Your task to perform on an android device: change keyboard looks Image 0: 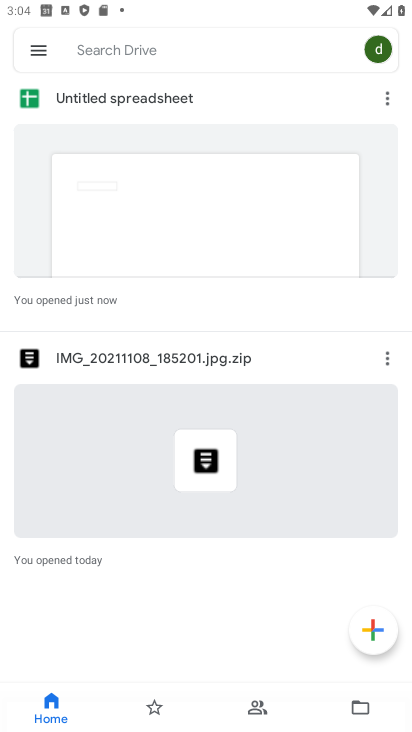
Step 0: press home button
Your task to perform on an android device: change keyboard looks Image 1: 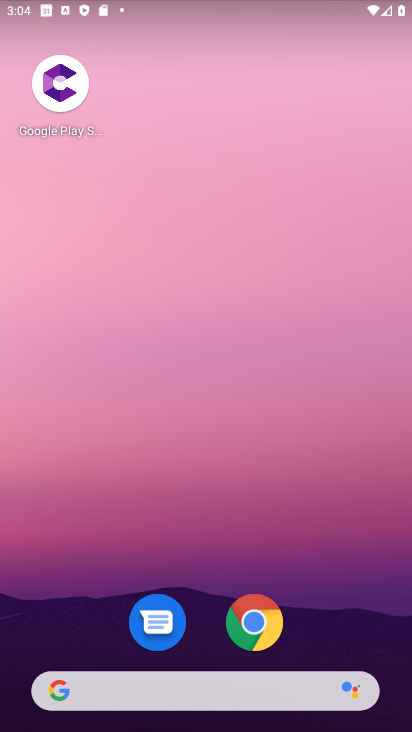
Step 1: drag from (321, 606) to (286, 231)
Your task to perform on an android device: change keyboard looks Image 2: 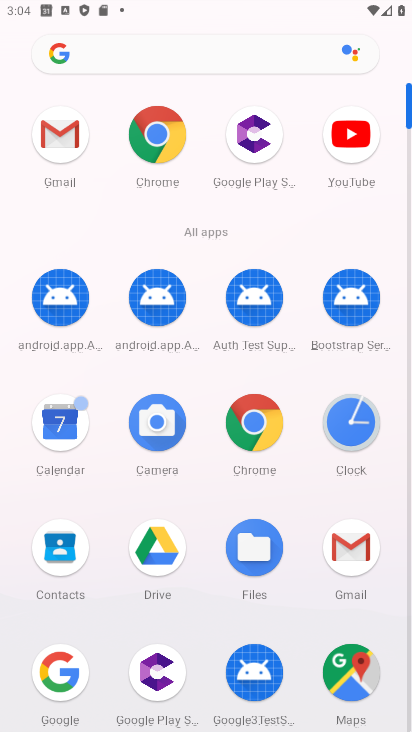
Step 2: drag from (279, 618) to (246, 247)
Your task to perform on an android device: change keyboard looks Image 3: 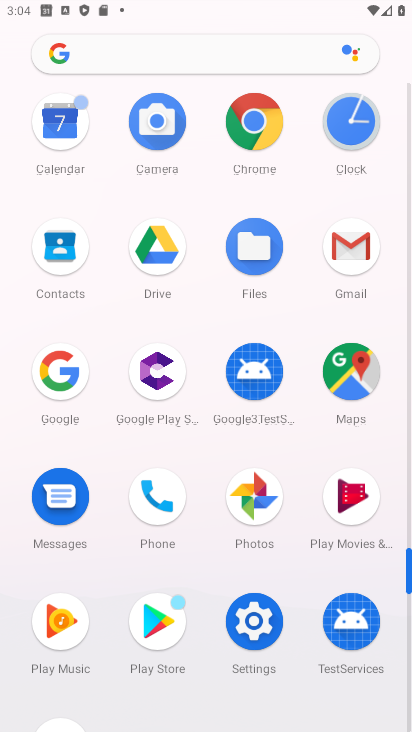
Step 3: click (258, 632)
Your task to perform on an android device: change keyboard looks Image 4: 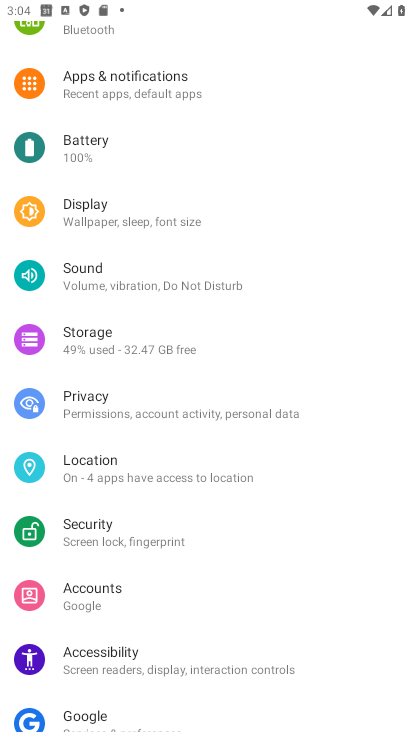
Step 4: drag from (255, 570) to (257, 234)
Your task to perform on an android device: change keyboard looks Image 5: 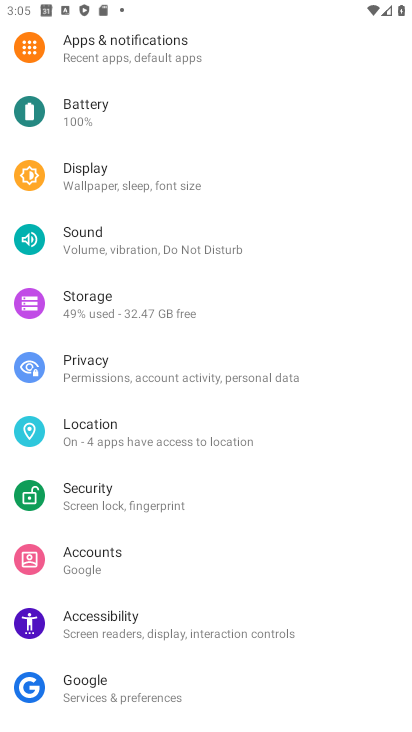
Step 5: drag from (195, 653) to (250, 294)
Your task to perform on an android device: change keyboard looks Image 6: 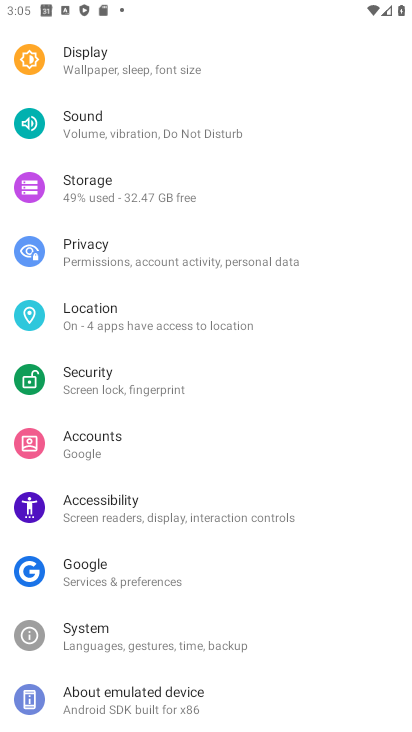
Step 6: click (149, 642)
Your task to perform on an android device: change keyboard looks Image 7: 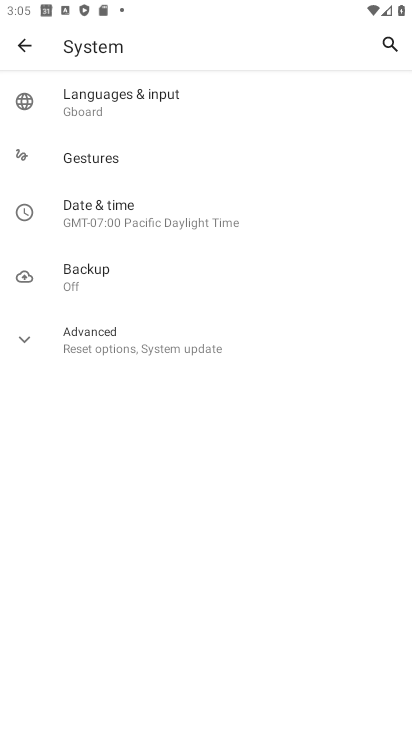
Step 7: click (142, 106)
Your task to perform on an android device: change keyboard looks Image 8: 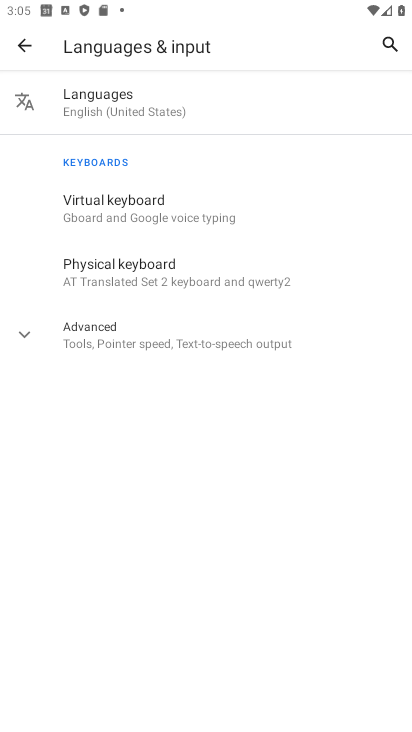
Step 8: click (144, 213)
Your task to perform on an android device: change keyboard looks Image 9: 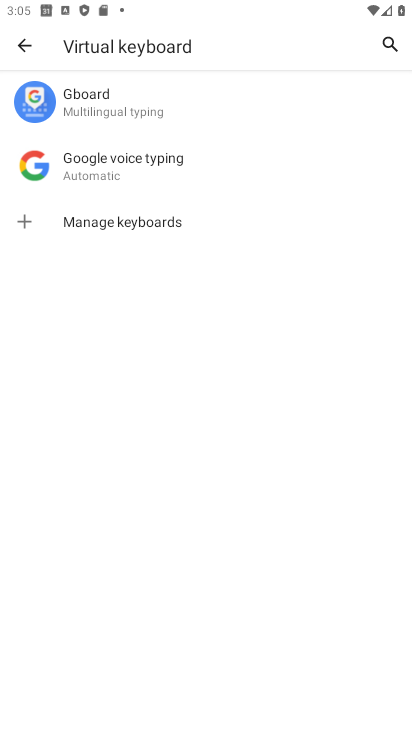
Step 9: click (114, 106)
Your task to perform on an android device: change keyboard looks Image 10: 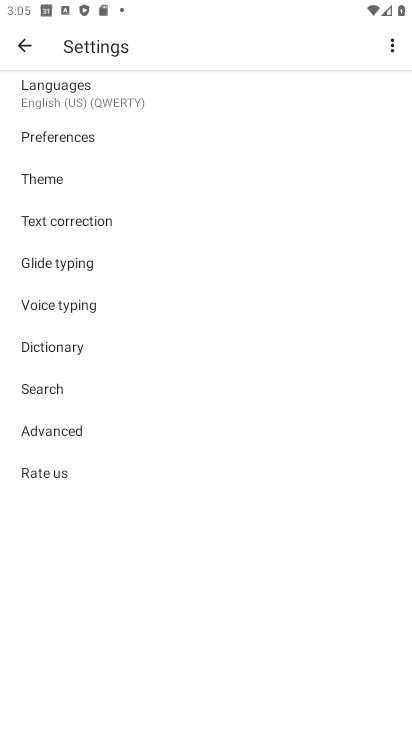
Step 10: click (47, 183)
Your task to perform on an android device: change keyboard looks Image 11: 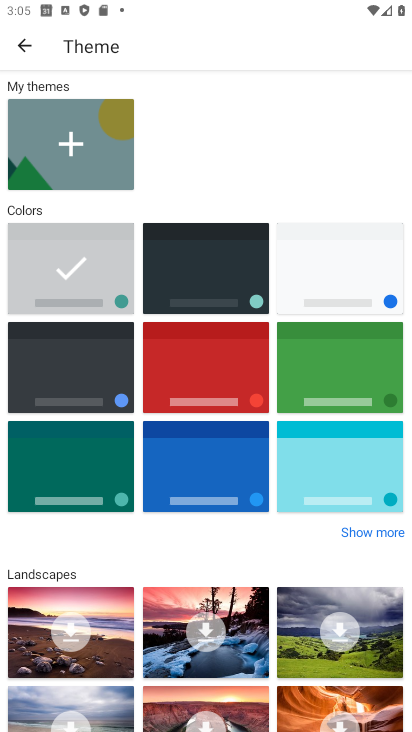
Step 11: click (315, 345)
Your task to perform on an android device: change keyboard looks Image 12: 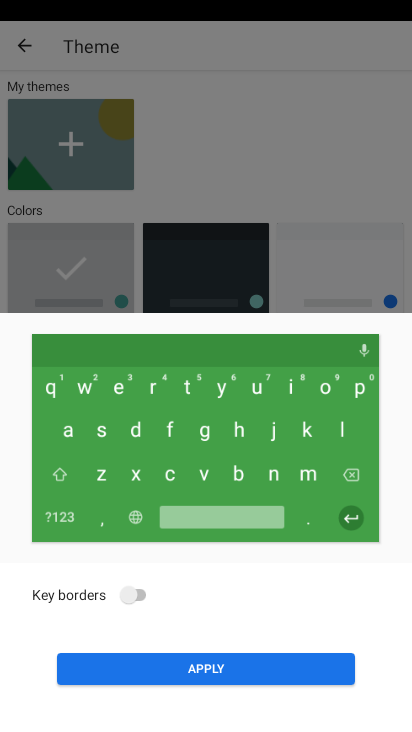
Step 12: click (182, 667)
Your task to perform on an android device: change keyboard looks Image 13: 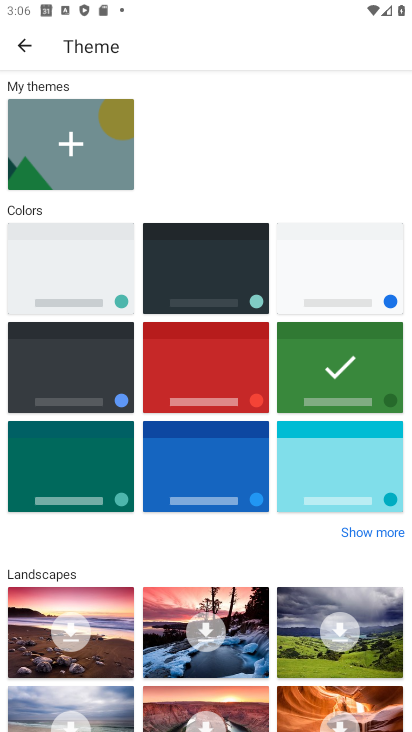
Step 13: task complete